Your task to perform on an android device: visit the assistant section in the google photos Image 0: 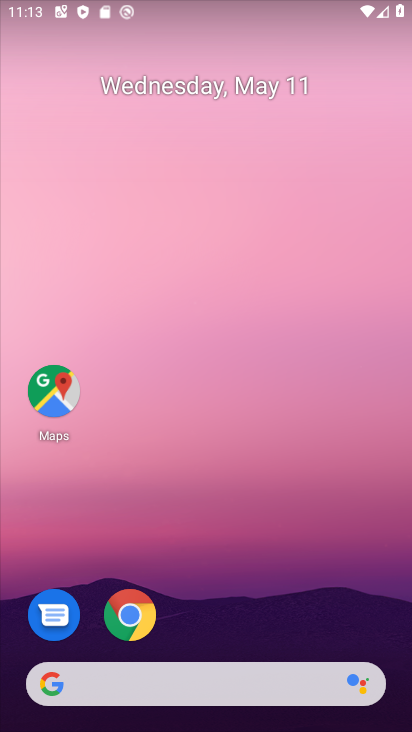
Step 0: drag from (257, 564) to (190, 11)
Your task to perform on an android device: visit the assistant section in the google photos Image 1: 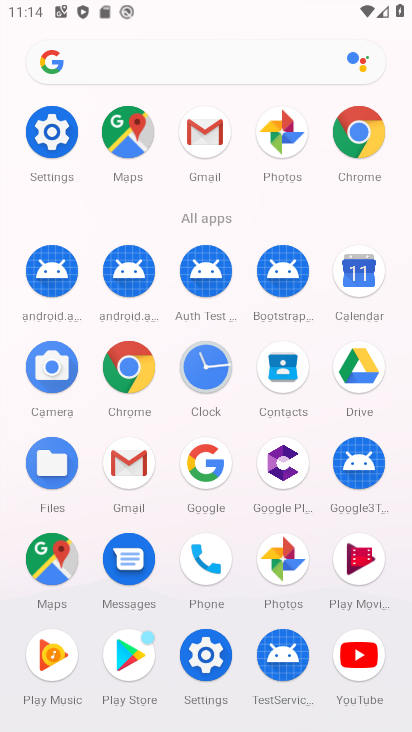
Step 1: click (289, 133)
Your task to perform on an android device: visit the assistant section in the google photos Image 2: 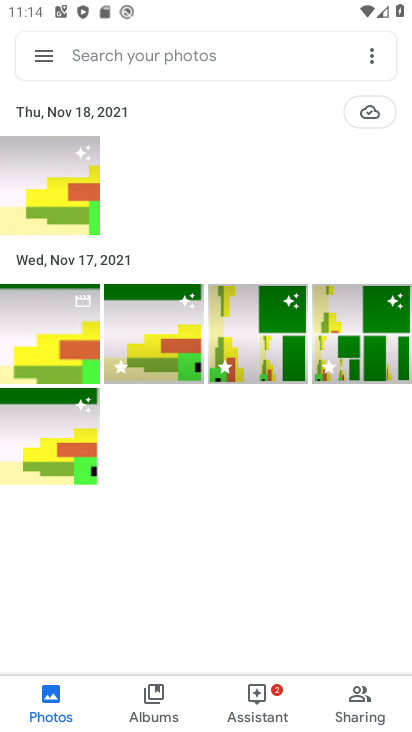
Step 2: click (256, 693)
Your task to perform on an android device: visit the assistant section in the google photos Image 3: 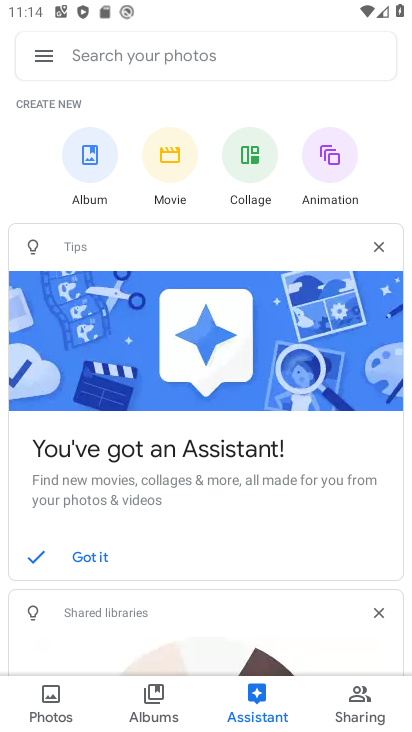
Step 3: task complete